Your task to perform on an android device: toggle location history Image 0: 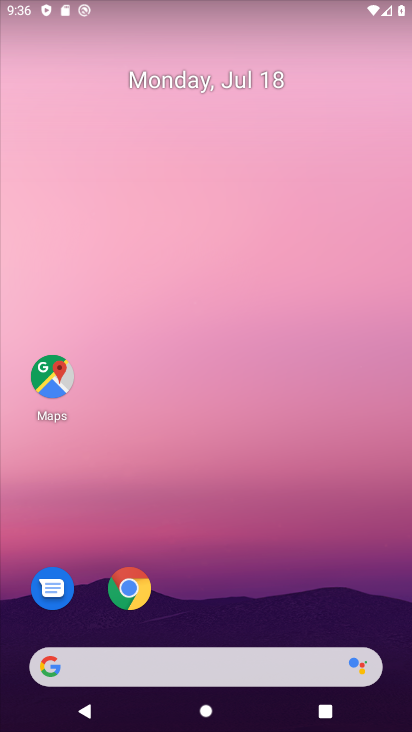
Step 0: drag from (259, 599) to (194, 110)
Your task to perform on an android device: toggle location history Image 1: 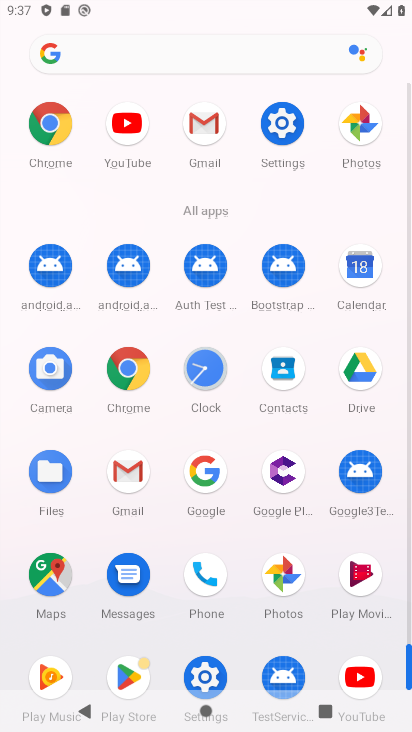
Step 1: click (269, 132)
Your task to perform on an android device: toggle location history Image 2: 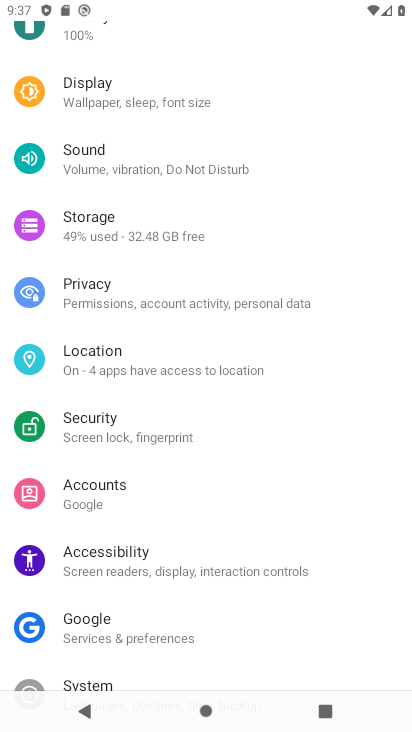
Step 2: click (77, 371)
Your task to perform on an android device: toggle location history Image 3: 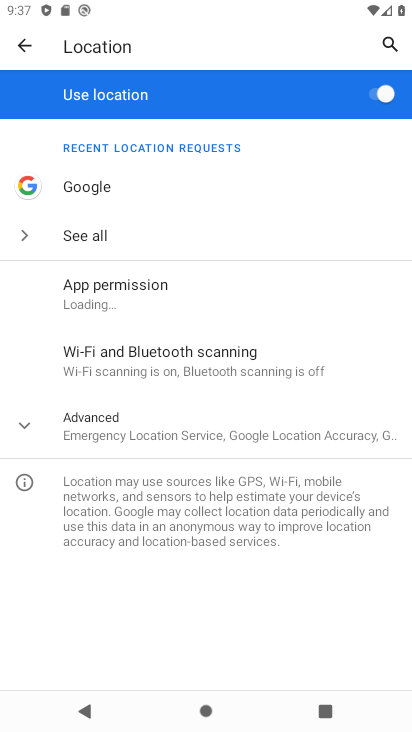
Step 3: click (129, 433)
Your task to perform on an android device: toggle location history Image 4: 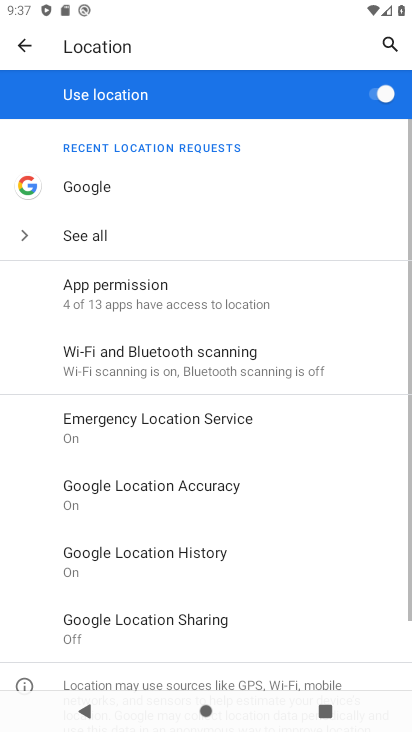
Step 4: click (191, 560)
Your task to perform on an android device: toggle location history Image 5: 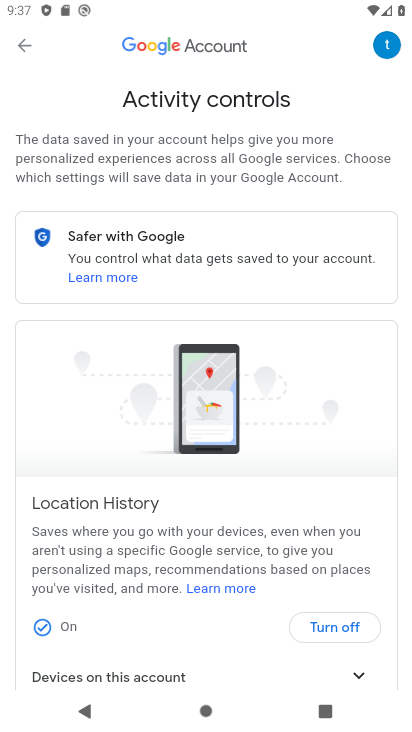
Step 5: click (350, 628)
Your task to perform on an android device: toggle location history Image 6: 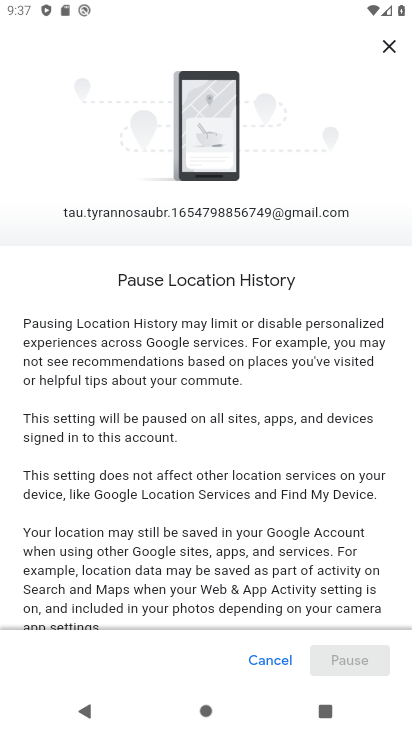
Step 6: drag from (279, 581) to (222, 198)
Your task to perform on an android device: toggle location history Image 7: 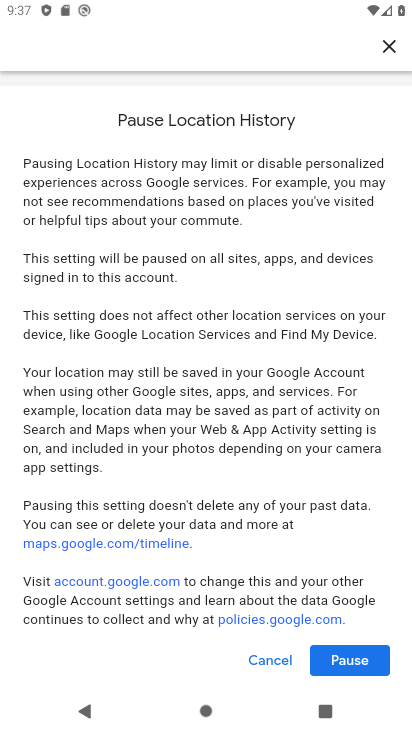
Step 7: click (342, 664)
Your task to perform on an android device: toggle location history Image 8: 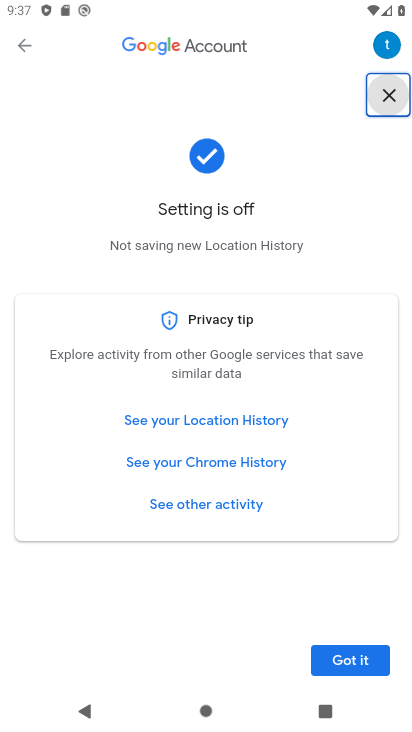
Step 8: click (342, 664)
Your task to perform on an android device: toggle location history Image 9: 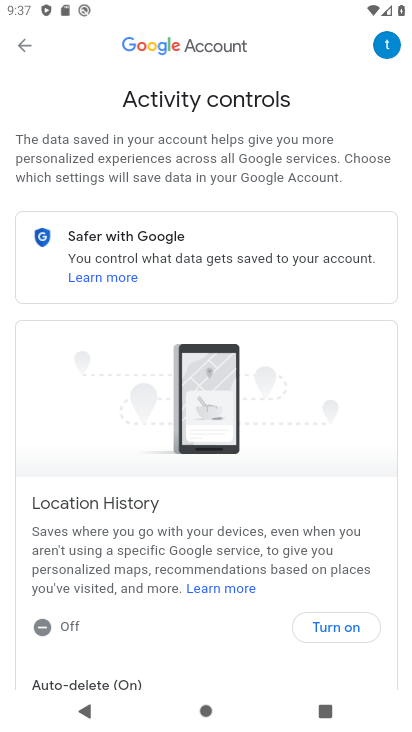
Step 9: task complete